Your task to perform on an android device: turn off wifi Image 0: 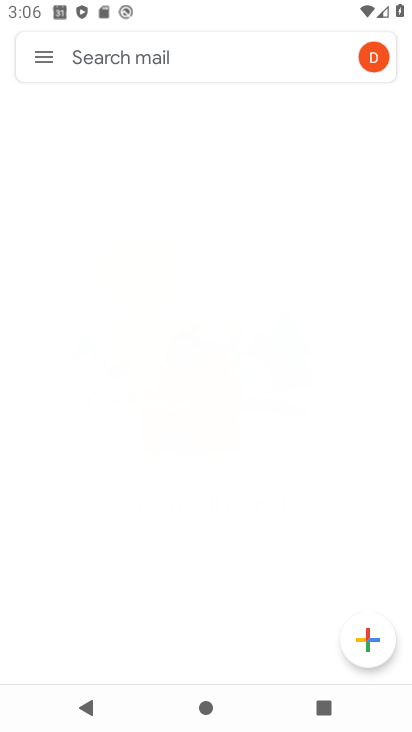
Step 0: press home button
Your task to perform on an android device: turn off wifi Image 1: 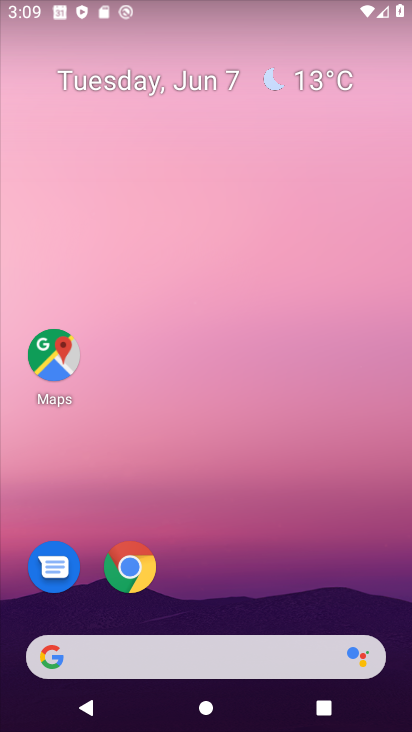
Step 1: drag from (398, 3) to (171, 725)
Your task to perform on an android device: turn off wifi Image 2: 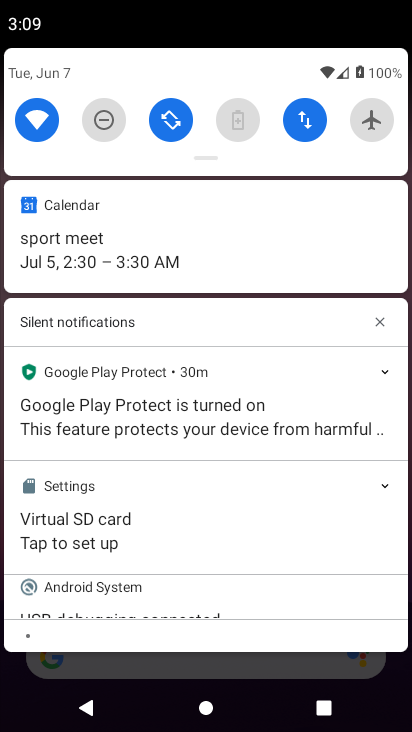
Step 2: click (41, 125)
Your task to perform on an android device: turn off wifi Image 3: 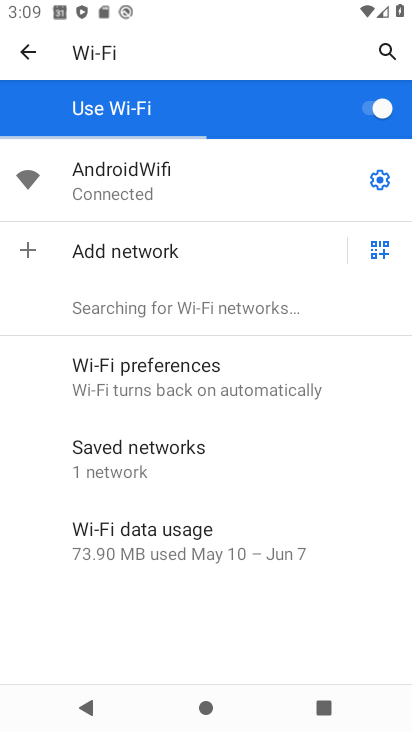
Step 3: click (368, 105)
Your task to perform on an android device: turn off wifi Image 4: 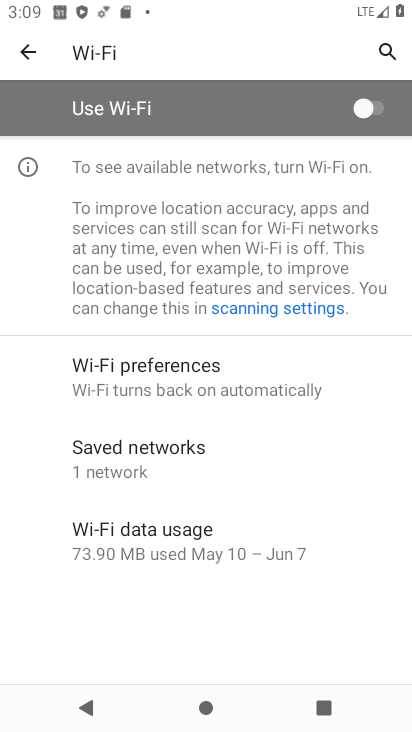
Step 4: task complete